Your task to perform on an android device: Google the capital of Canada Image 0: 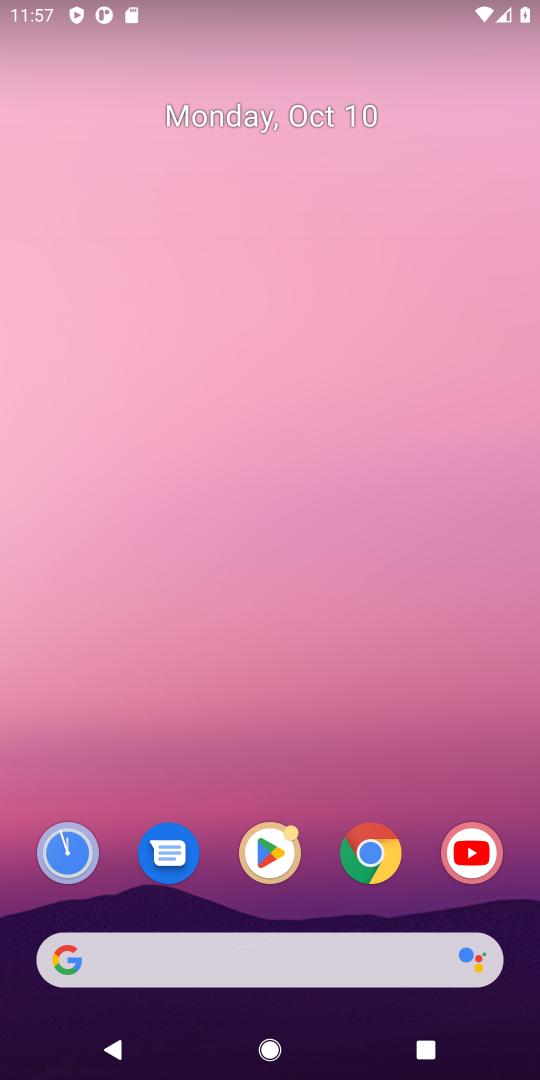
Step 0: drag from (326, 907) to (399, 25)
Your task to perform on an android device: Google the capital of Canada Image 1: 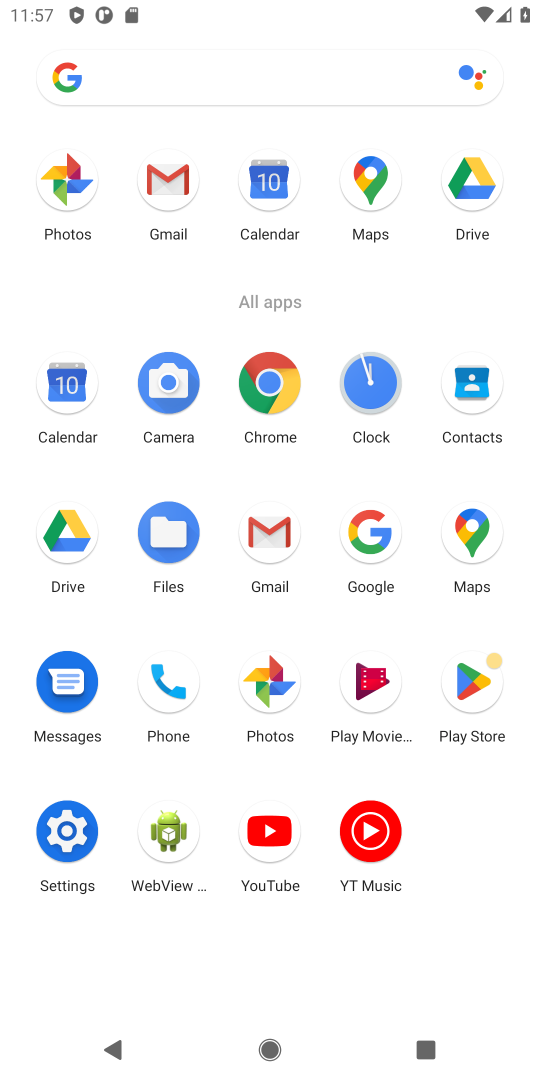
Step 1: click (265, 410)
Your task to perform on an android device: Google the capital of Canada Image 2: 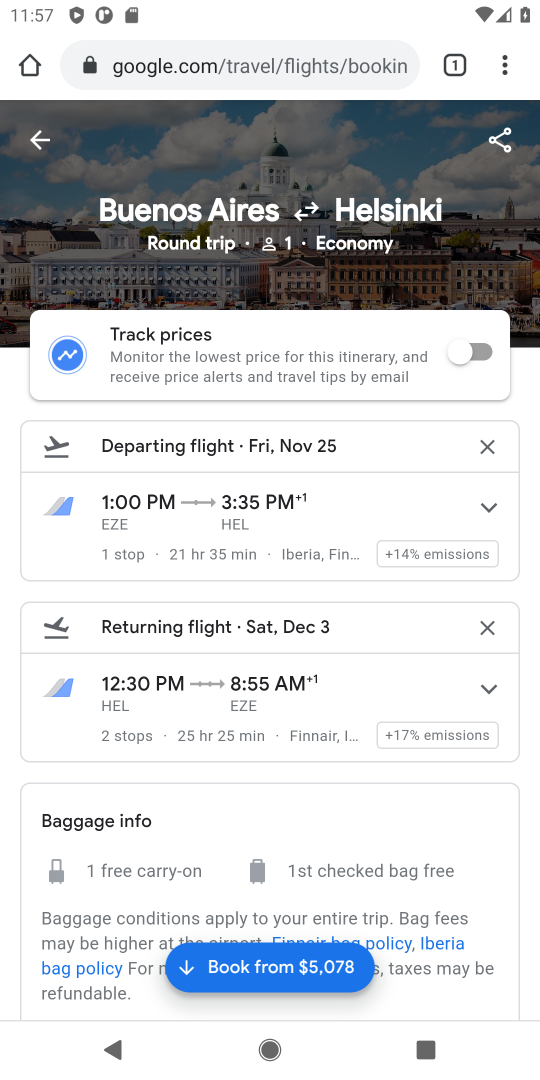
Step 2: click (251, 64)
Your task to perform on an android device: Google the capital of Canada Image 3: 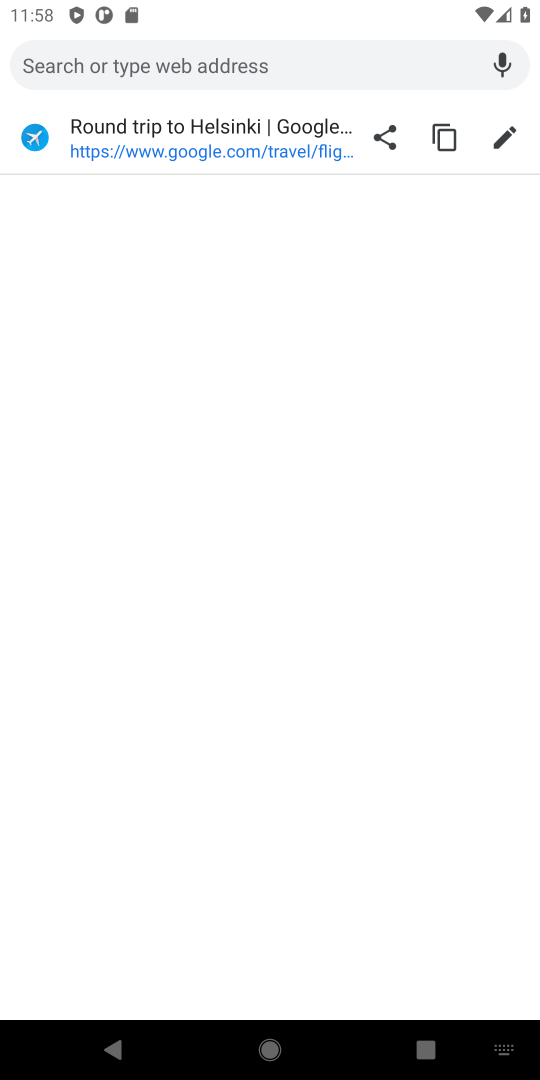
Step 3: type "capital of Canada"
Your task to perform on an android device: Google the capital of Canada Image 4: 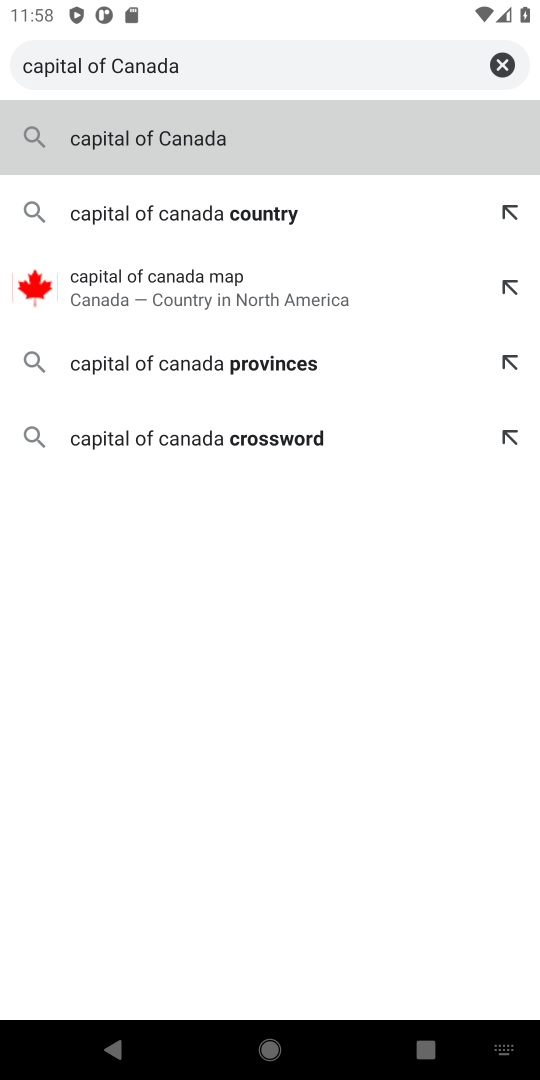
Step 4: type ""
Your task to perform on an android device: Google the capital of Canada Image 5: 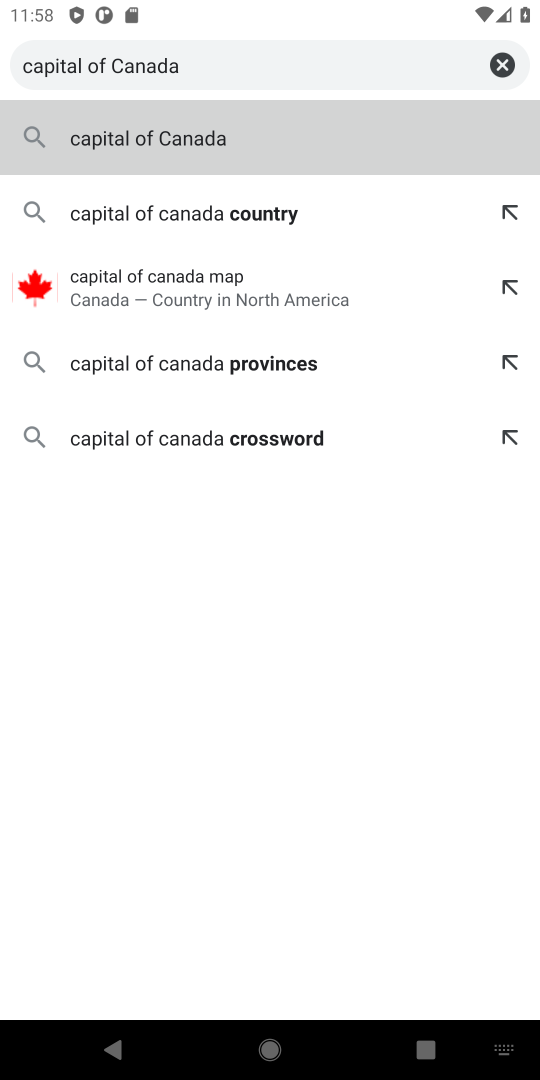
Step 5: click (237, 143)
Your task to perform on an android device: Google the capital of Canada Image 6: 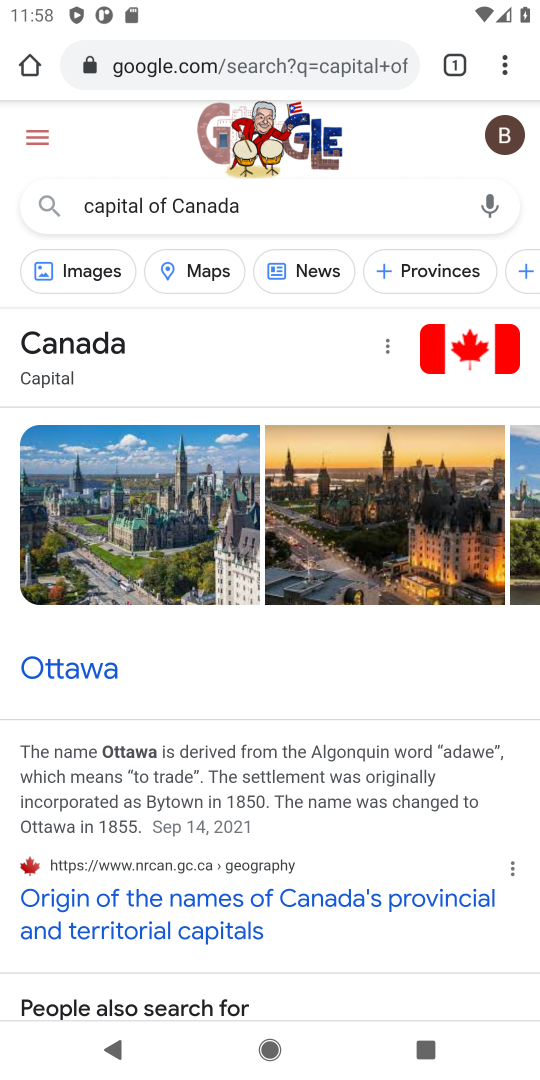
Step 6: click (159, 930)
Your task to perform on an android device: Google the capital of Canada Image 7: 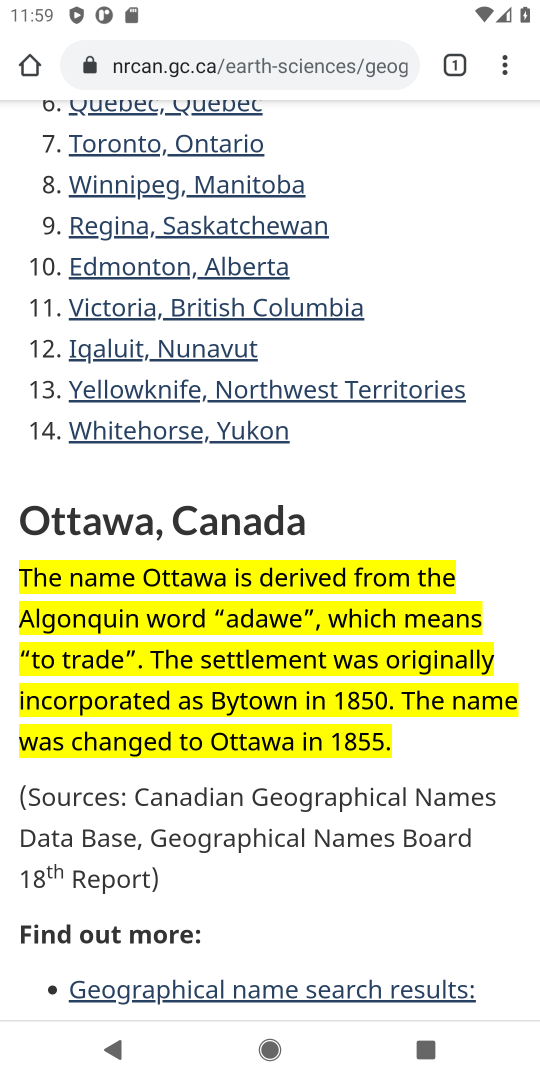
Step 7: drag from (193, 1009) to (296, 248)
Your task to perform on an android device: Google the capital of Canada Image 8: 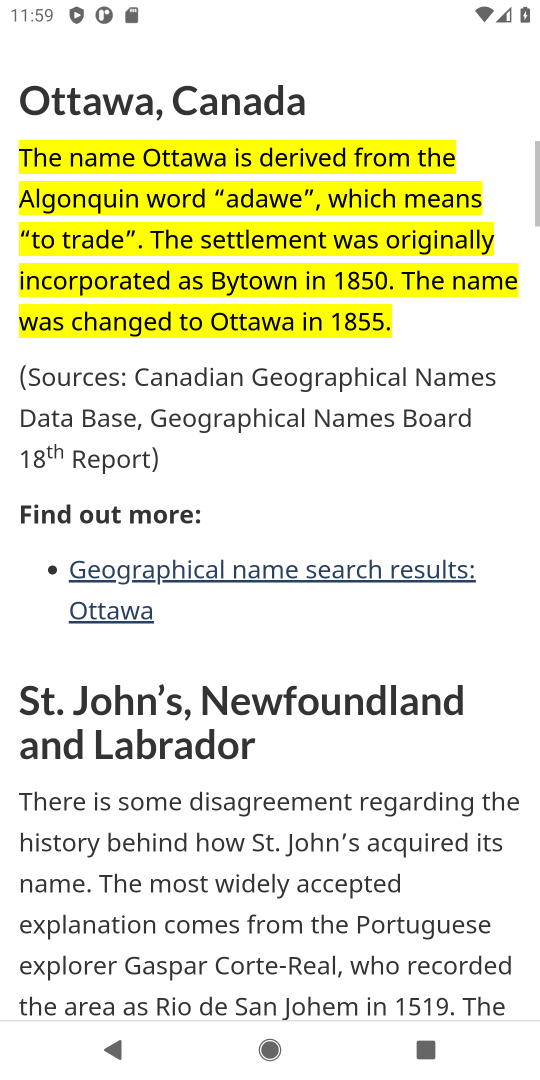
Step 8: drag from (278, 459) to (280, 233)
Your task to perform on an android device: Google the capital of Canada Image 9: 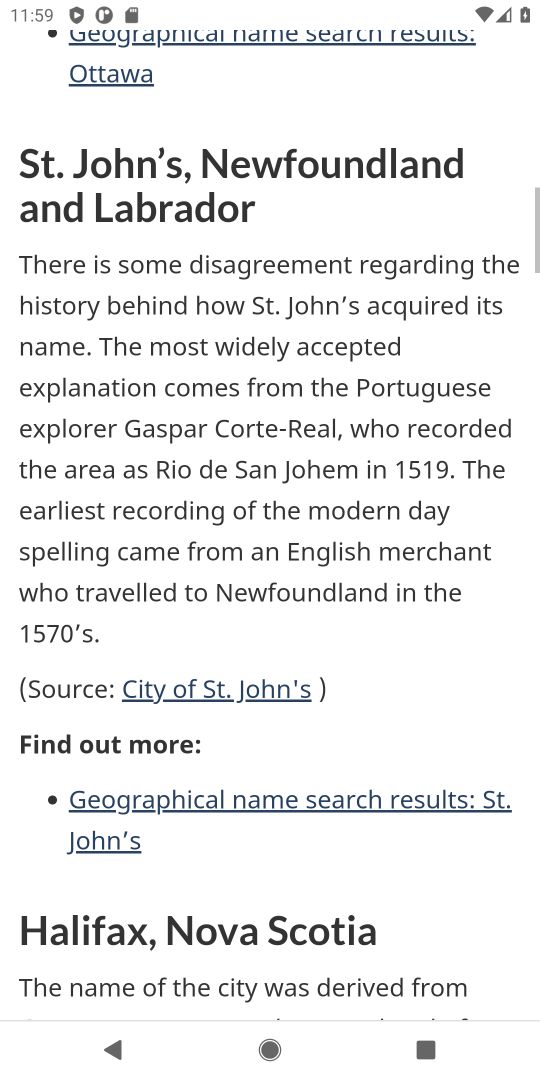
Step 9: drag from (259, 631) to (275, 330)
Your task to perform on an android device: Google the capital of Canada Image 10: 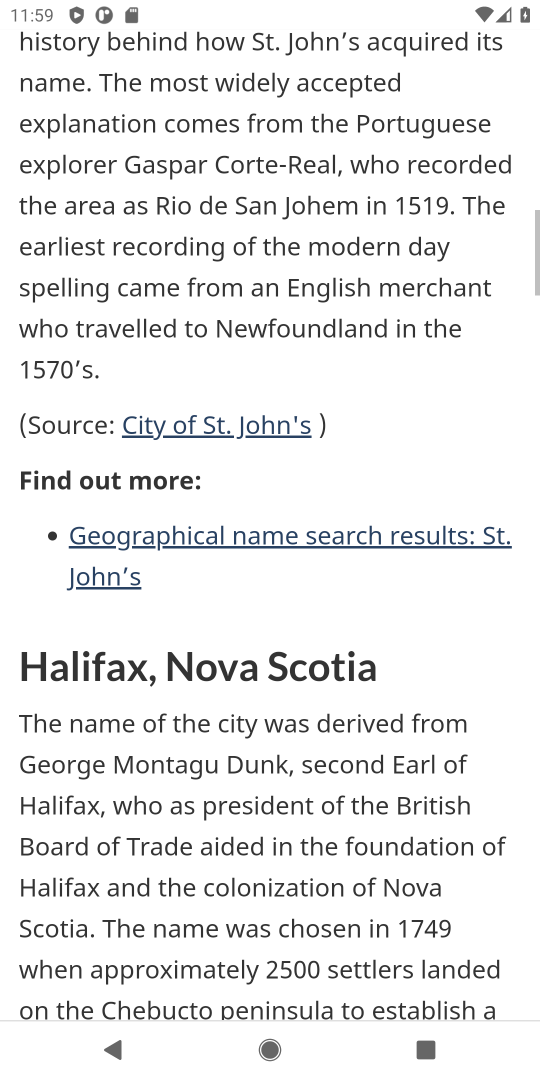
Step 10: drag from (294, 645) to (326, 332)
Your task to perform on an android device: Google the capital of Canada Image 11: 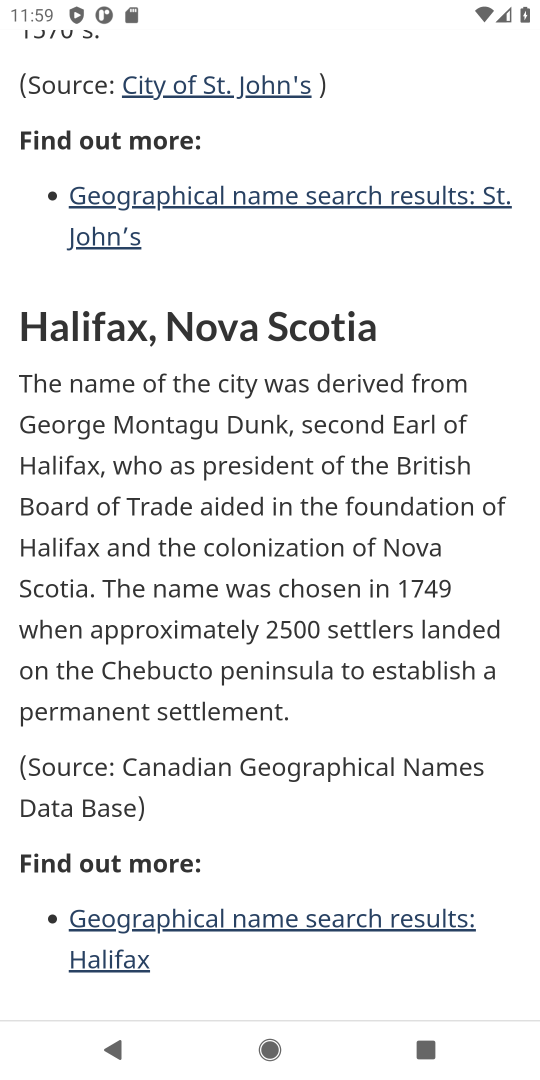
Step 11: drag from (331, 701) to (383, 226)
Your task to perform on an android device: Google the capital of Canada Image 12: 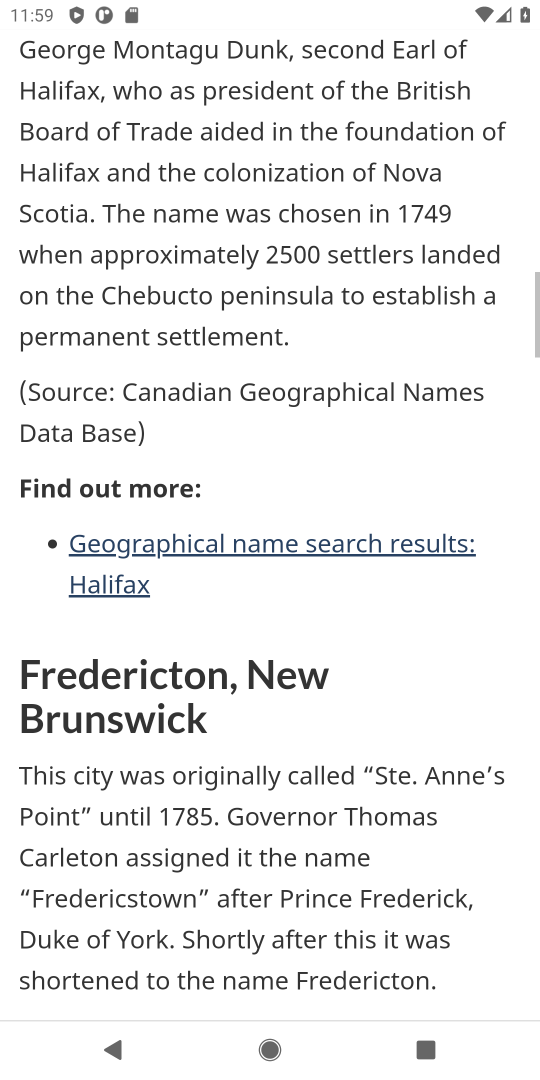
Step 12: drag from (408, 520) to (410, 268)
Your task to perform on an android device: Google the capital of Canada Image 13: 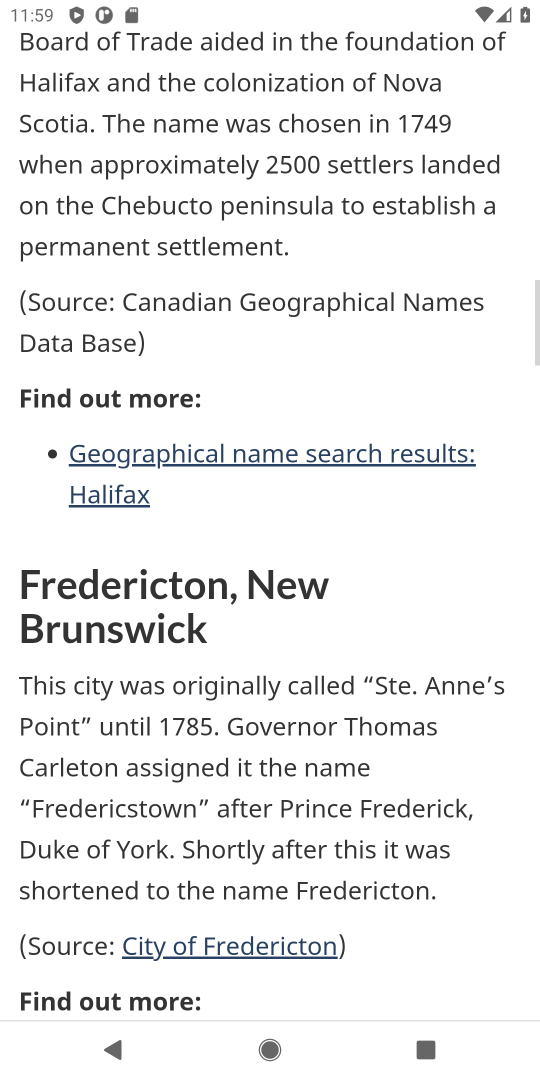
Step 13: drag from (381, 706) to (389, 264)
Your task to perform on an android device: Google the capital of Canada Image 14: 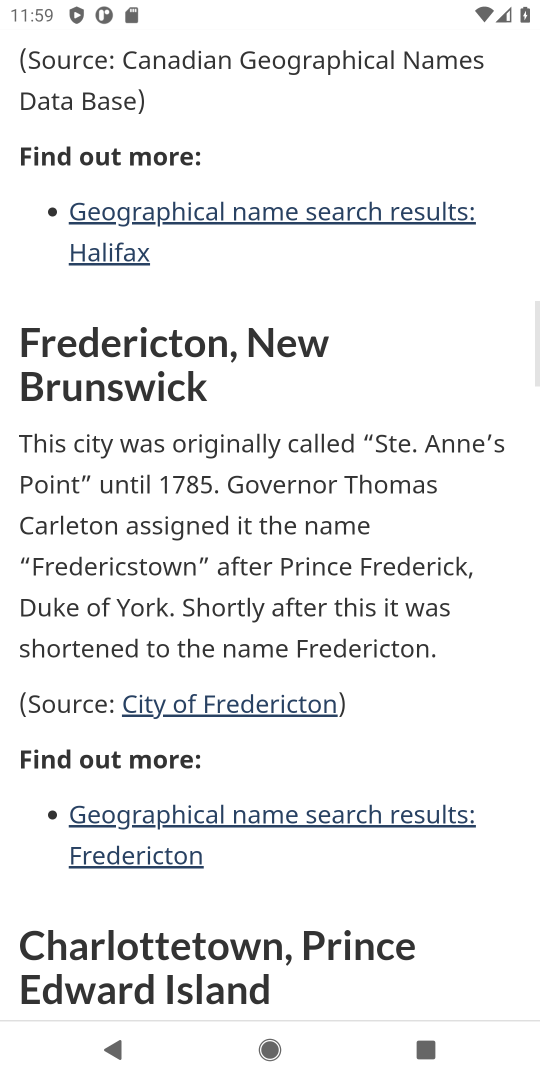
Step 14: drag from (401, 706) to (428, 272)
Your task to perform on an android device: Google the capital of Canada Image 15: 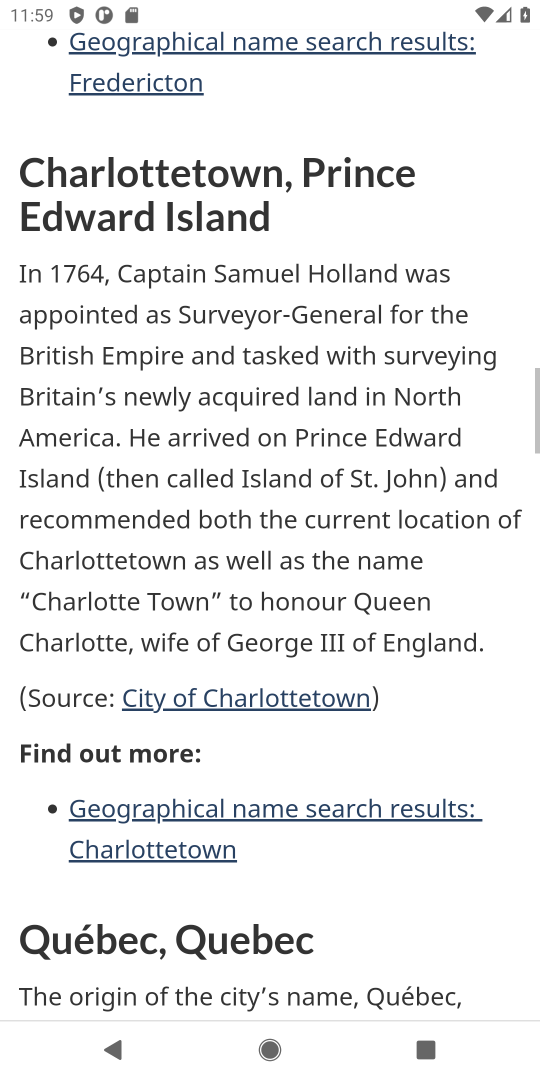
Step 15: drag from (367, 721) to (387, 281)
Your task to perform on an android device: Google the capital of Canada Image 16: 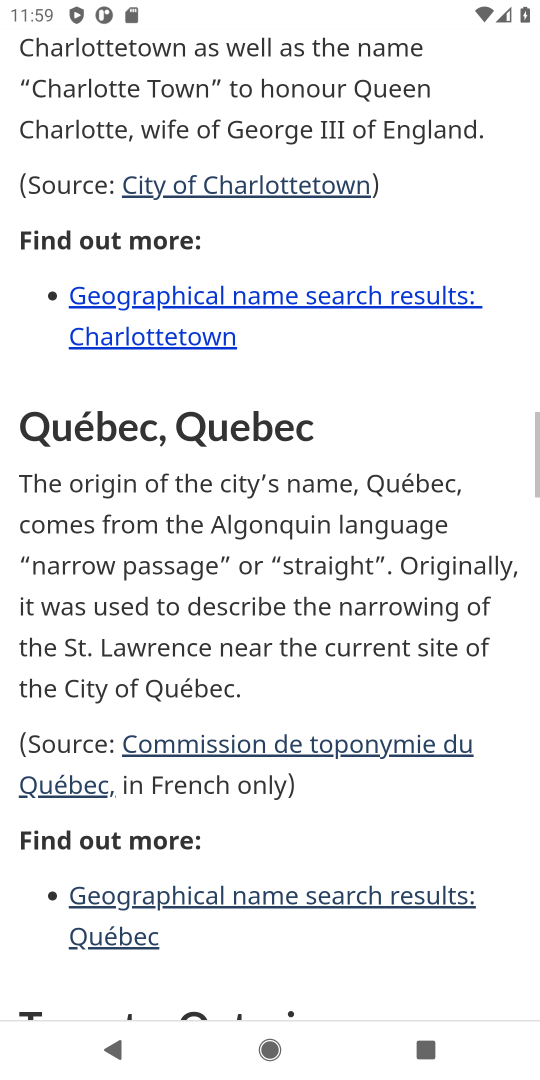
Step 16: drag from (381, 540) to (377, 373)
Your task to perform on an android device: Google the capital of Canada Image 17: 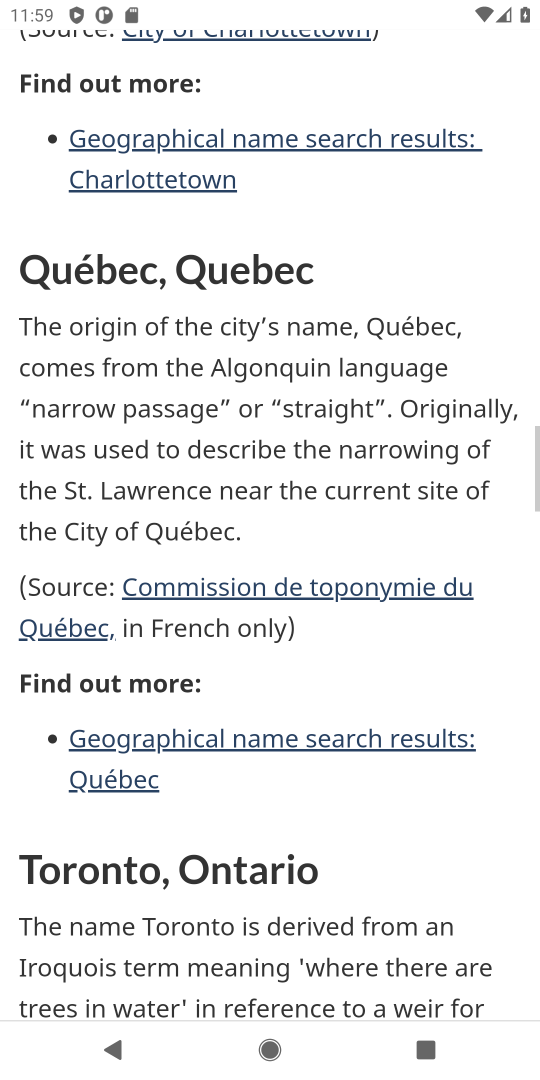
Step 17: drag from (292, 538) to (292, 422)
Your task to perform on an android device: Google the capital of Canada Image 18: 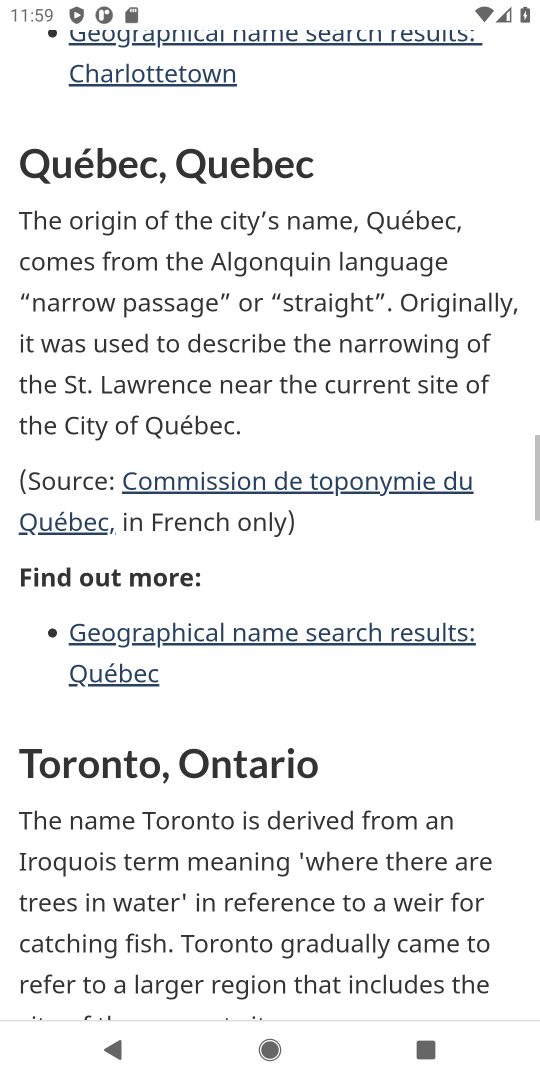
Step 18: drag from (301, 706) to (319, 354)
Your task to perform on an android device: Google the capital of Canada Image 19: 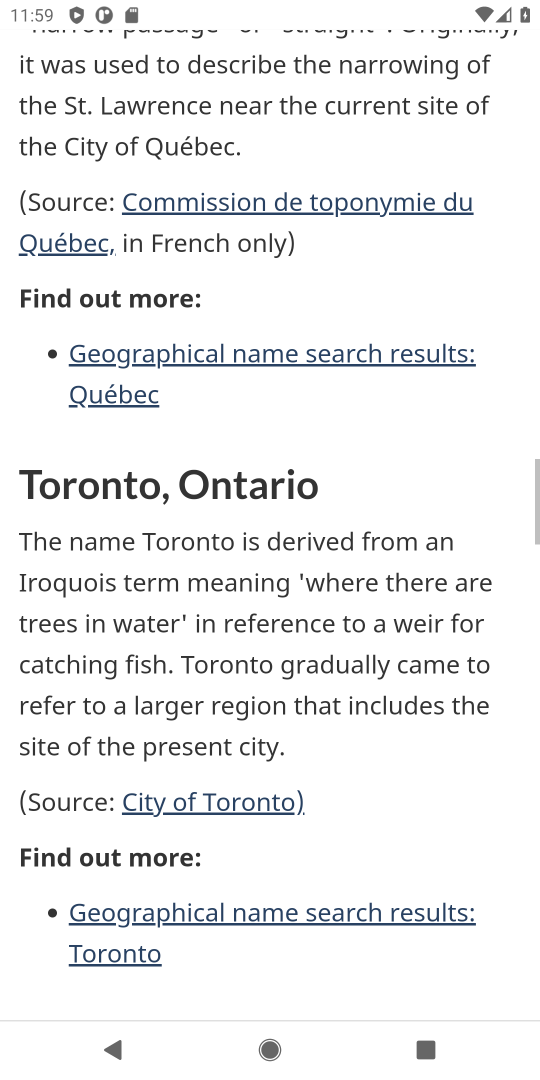
Step 19: drag from (303, 688) to (345, 396)
Your task to perform on an android device: Google the capital of Canada Image 20: 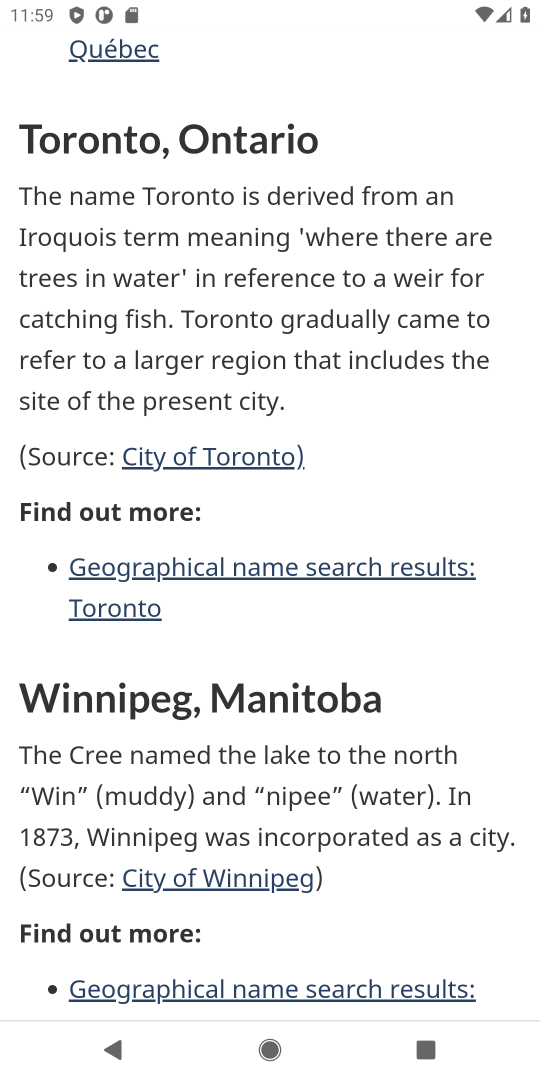
Step 20: click (344, 290)
Your task to perform on an android device: Google the capital of Canada Image 21: 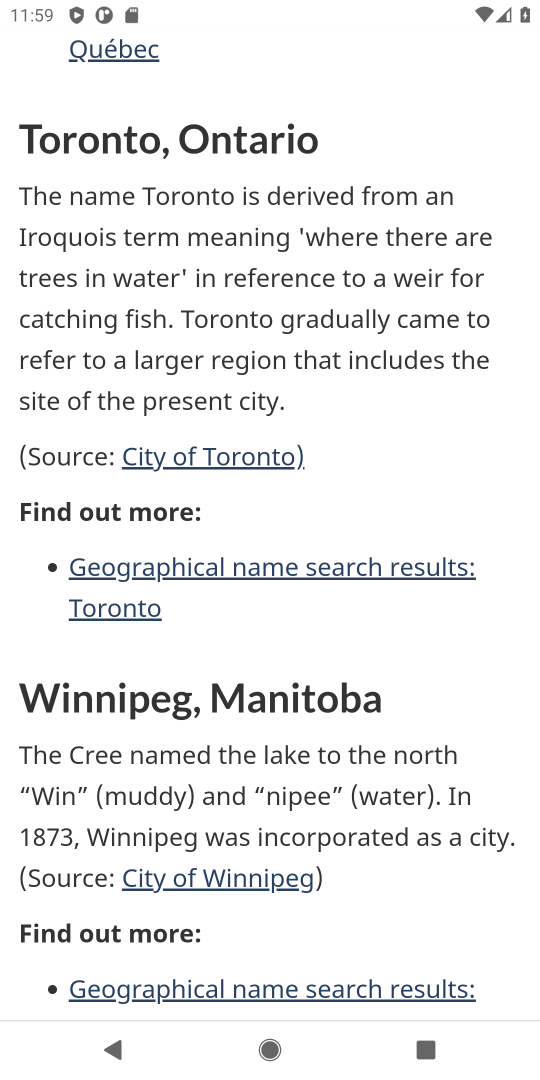
Step 21: click (362, 317)
Your task to perform on an android device: Google the capital of Canada Image 22: 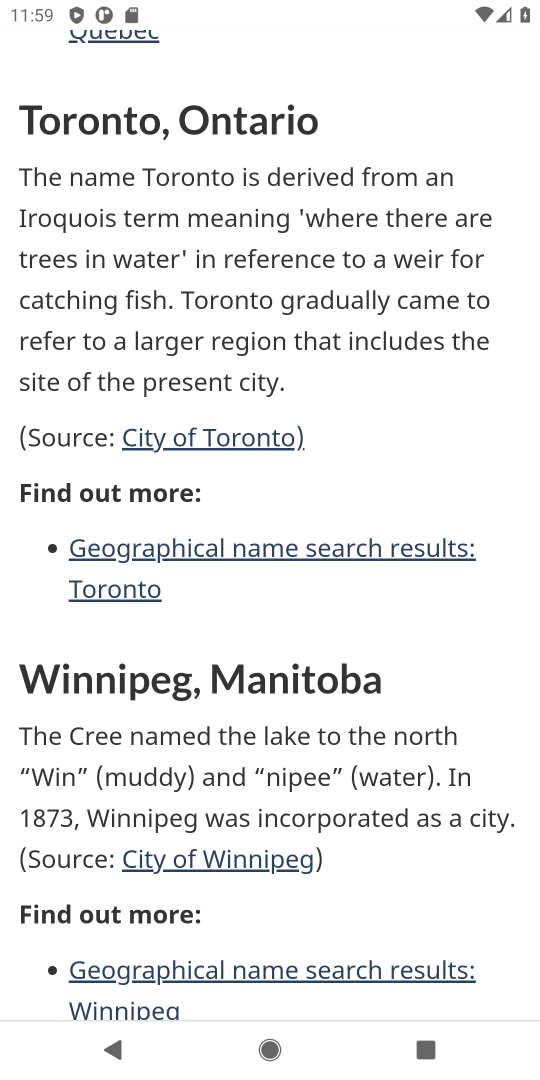
Step 22: press back button
Your task to perform on an android device: Google the capital of Canada Image 23: 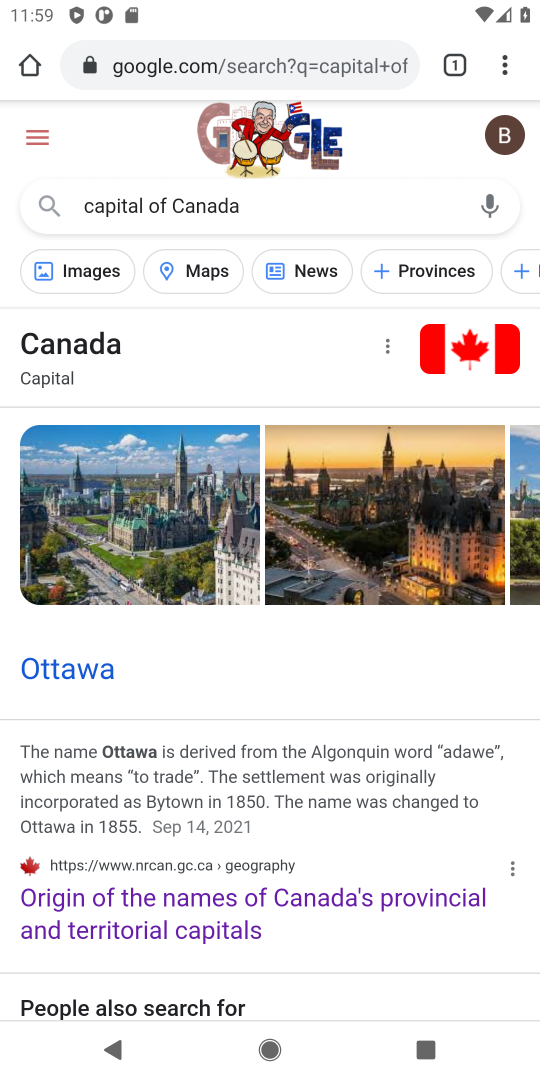
Step 23: drag from (152, 797) to (233, 346)
Your task to perform on an android device: Google the capital of Canada Image 24: 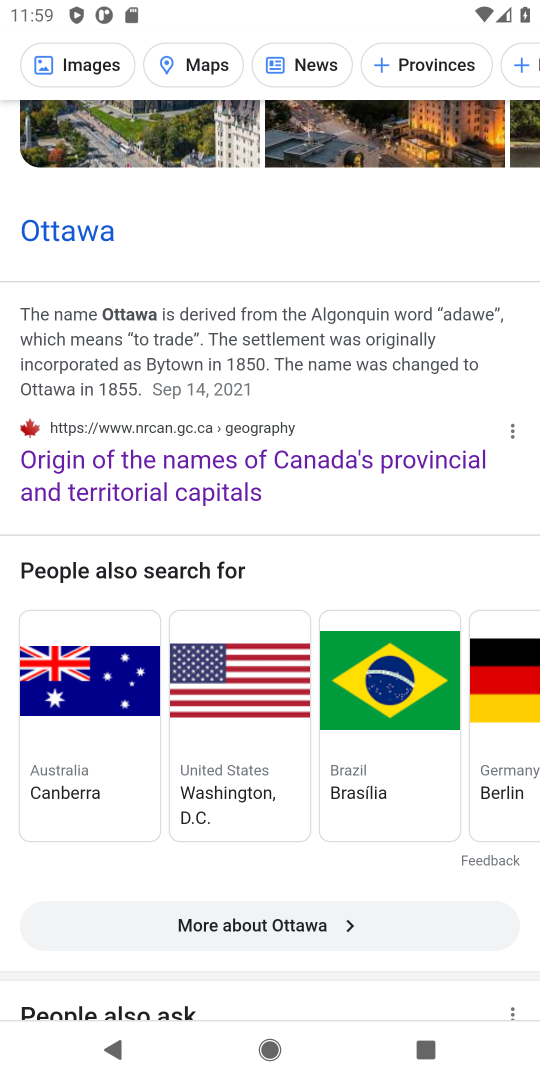
Step 24: drag from (261, 696) to (263, 288)
Your task to perform on an android device: Google the capital of Canada Image 25: 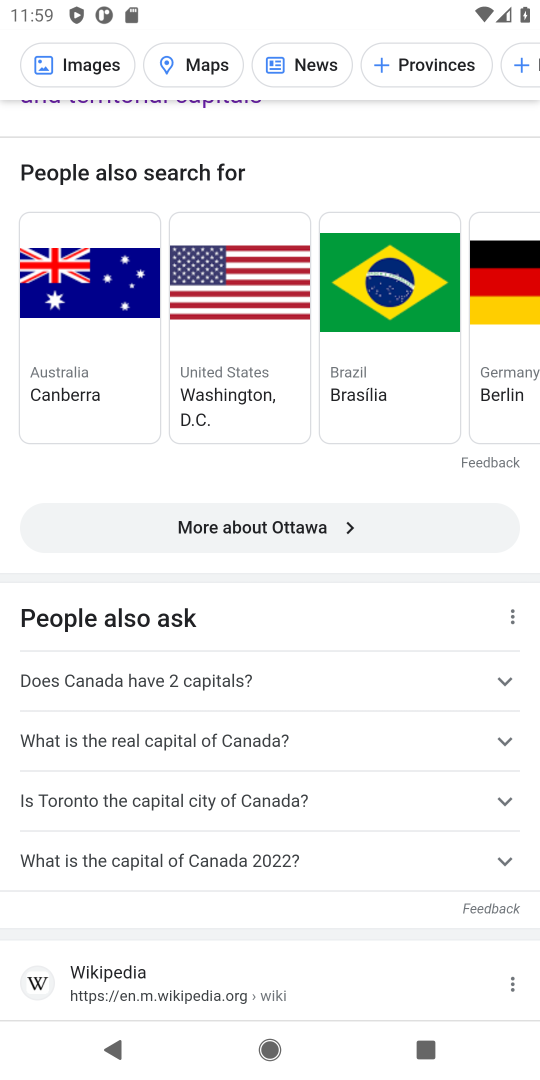
Step 25: drag from (195, 921) to (231, 317)
Your task to perform on an android device: Google the capital of Canada Image 26: 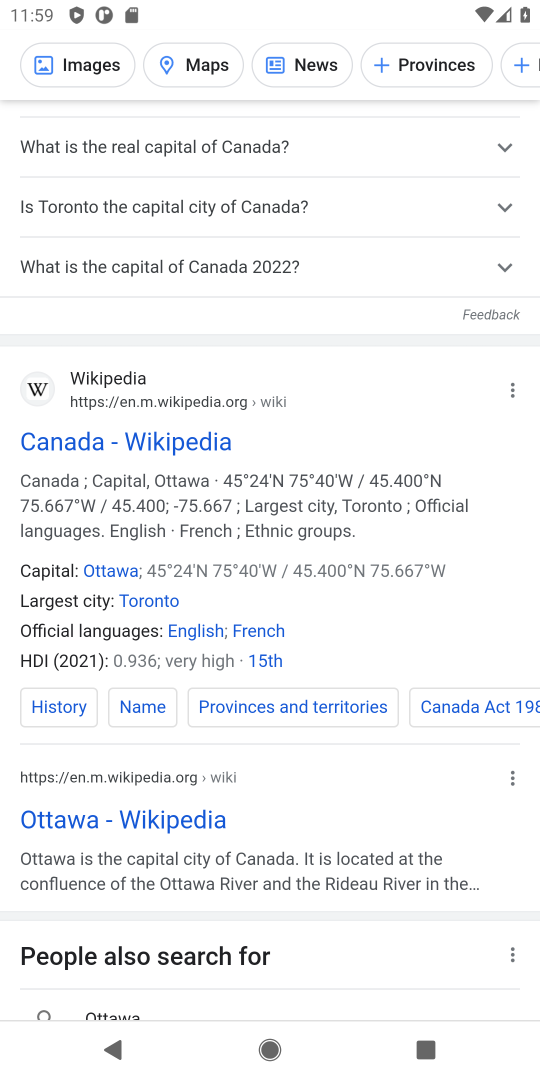
Step 26: click (160, 444)
Your task to perform on an android device: Google the capital of Canada Image 27: 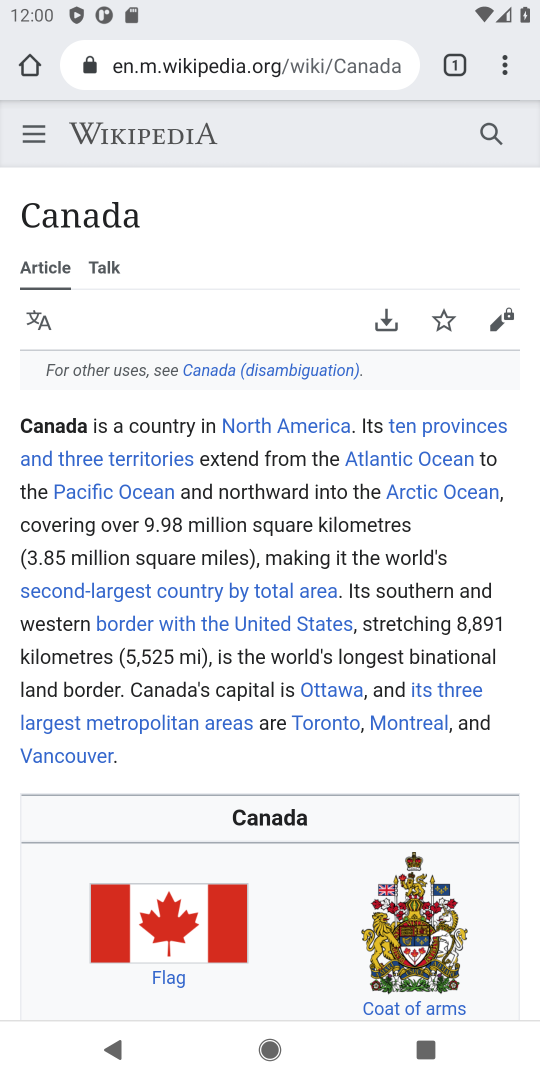
Step 27: task complete